Your task to perform on an android device: delete location history Image 0: 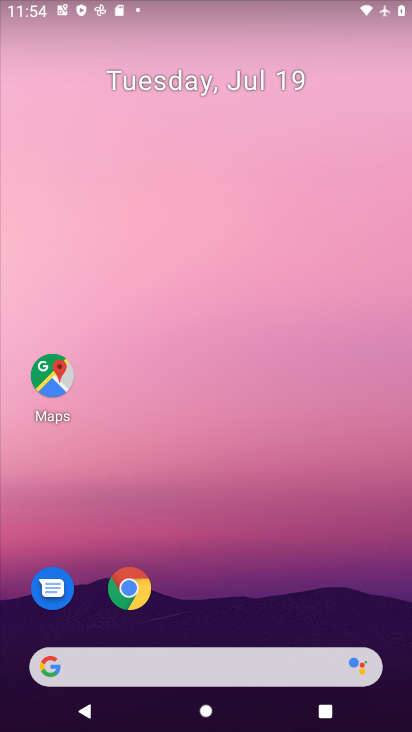
Step 0: drag from (390, 633) to (191, 29)
Your task to perform on an android device: delete location history Image 1: 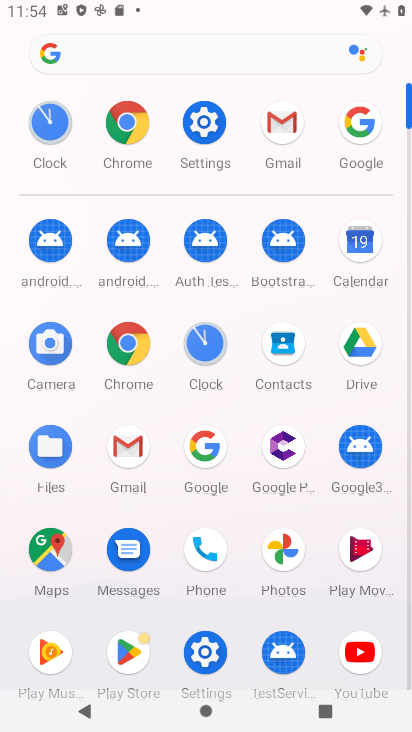
Step 1: click (210, 635)
Your task to perform on an android device: delete location history Image 2: 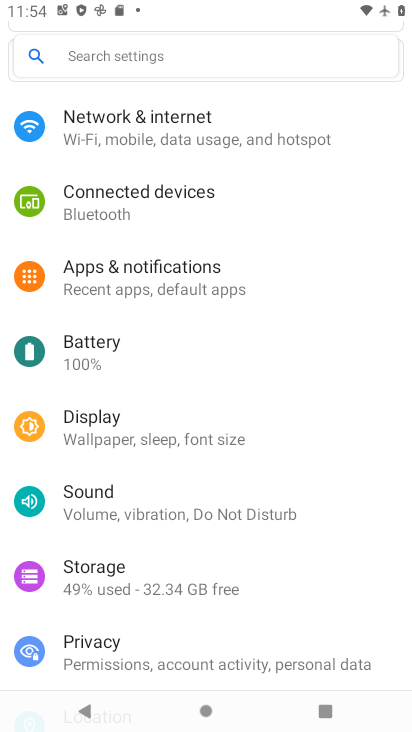
Step 2: drag from (167, 634) to (148, 152)
Your task to perform on an android device: delete location history Image 3: 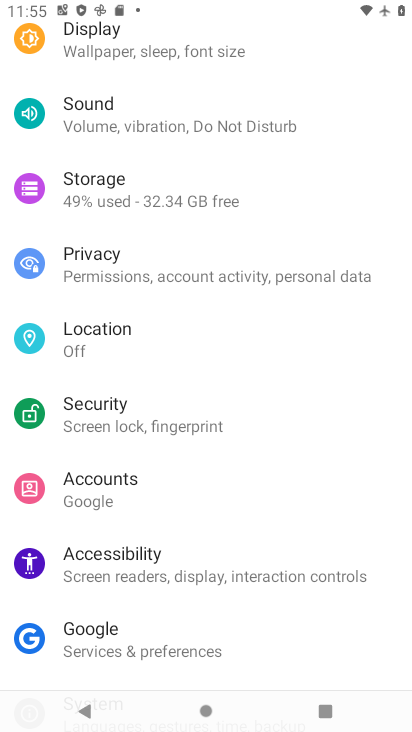
Step 3: click (109, 352)
Your task to perform on an android device: delete location history Image 4: 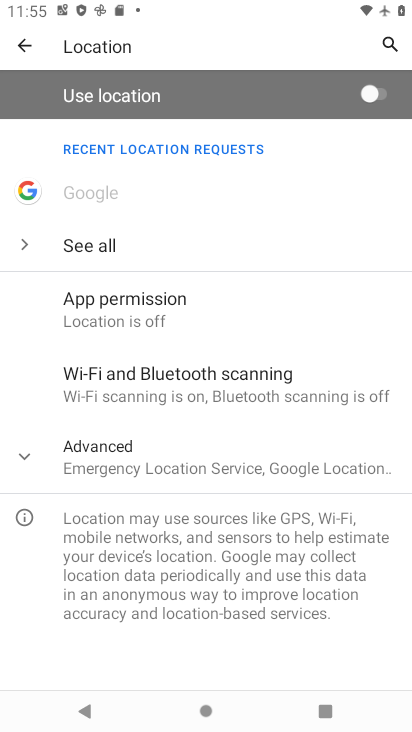
Step 4: click (113, 459)
Your task to perform on an android device: delete location history Image 5: 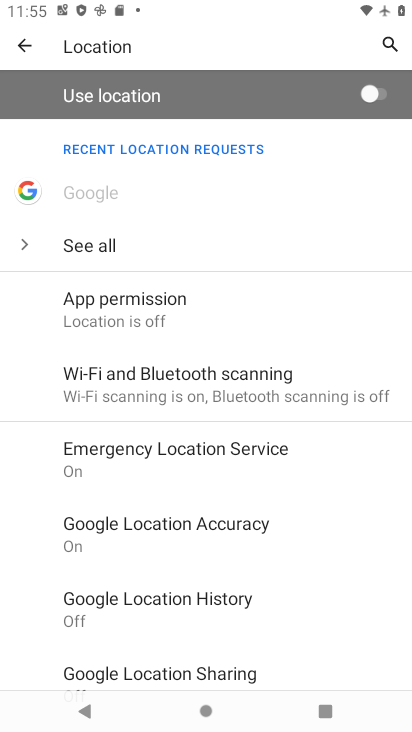
Step 5: click (227, 610)
Your task to perform on an android device: delete location history Image 6: 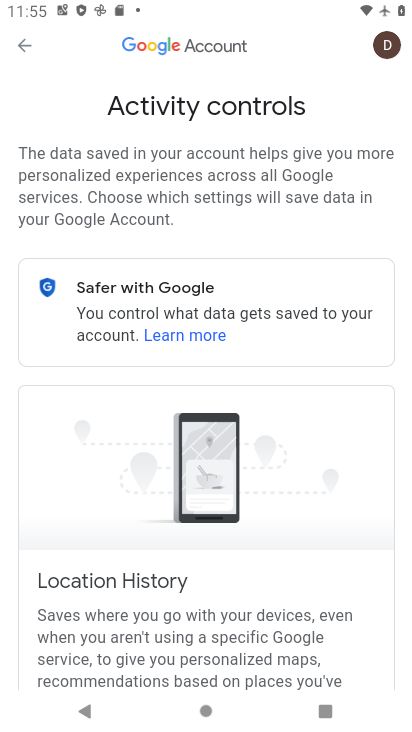
Step 6: drag from (224, 607) to (199, 88)
Your task to perform on an android device: delete location history Image 7: 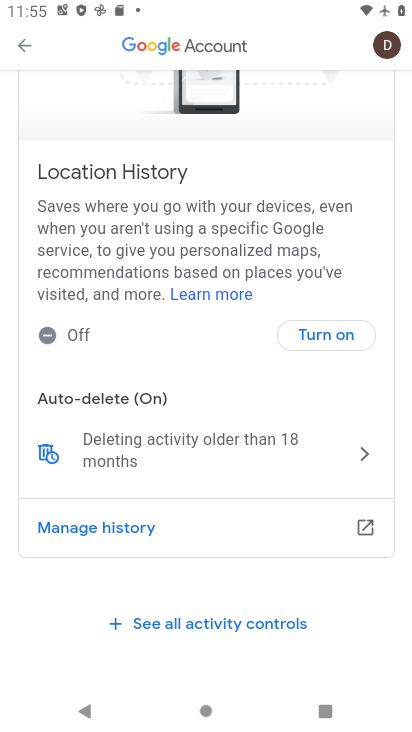
Step 7: click (204, 449)
Your task to perform on an android device: delete location history Image 8: 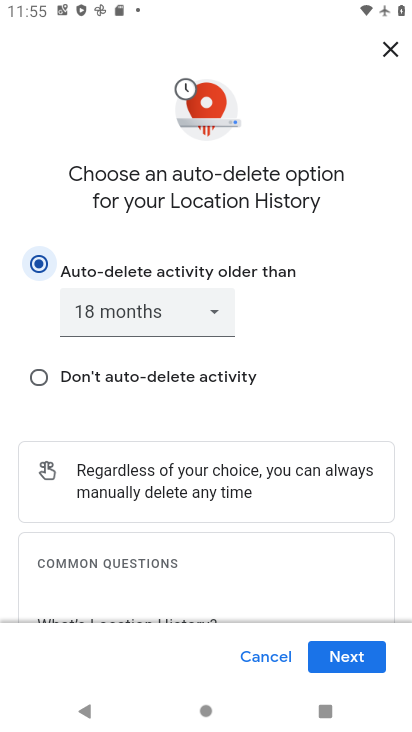
Step 8: click (321, 663)
Your task to perform on an android device: delete location history Image 9: 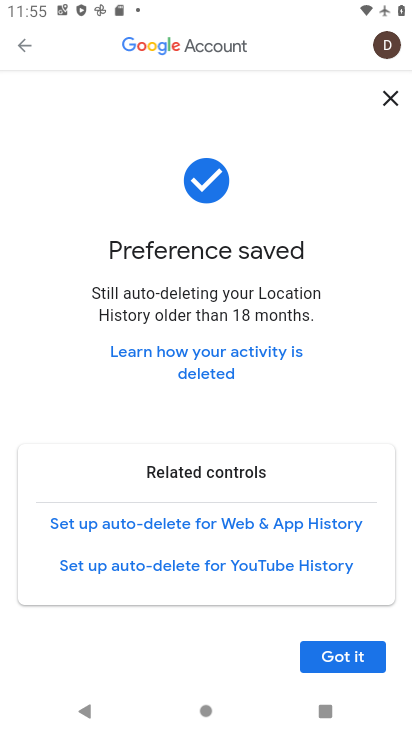
Step 9: task complete